Your task to perform on an android device: What's the weather going to be tomorrow? Image 0: 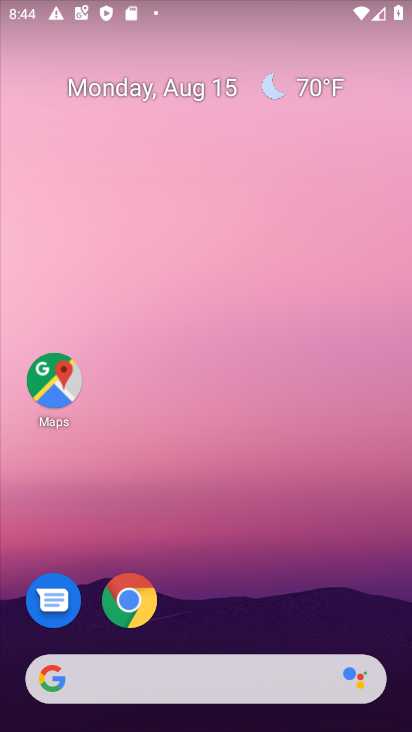
Step 0: drag from (229, 647) to (220, 192)
Your task to perform on an android device: What's the weather going to be tomorrow? Image 1: 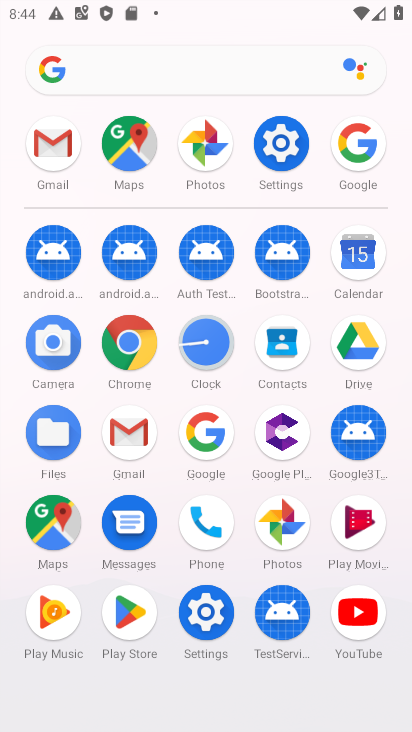
Step 1: click (208, 437)
Your task to perform on an android device: What's the weather going to be tomorrow? Image 2: 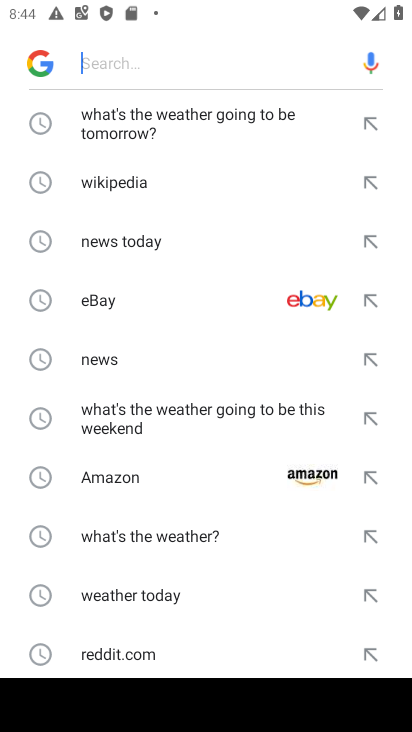
Step 2: click (44, 56)
Your task to perform on an android device: What's the weather going to be tomorrow? Image 3: 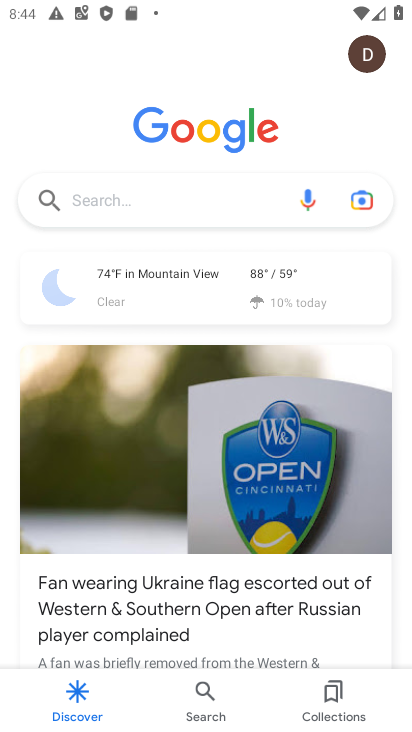
Step 3: click (168, 274)
Your task to perform on an android device: What's the weather going to be tomorrow? Image 4: 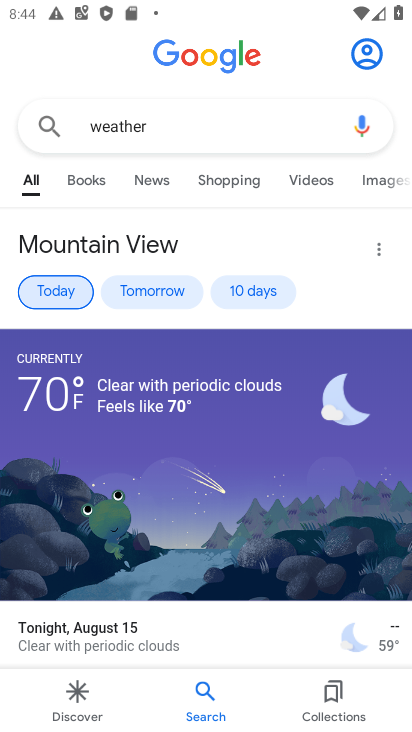
Step 4: click (160, 290)
Your task to perform on an android device: What's the weather going to be tomorrow? Image 5: 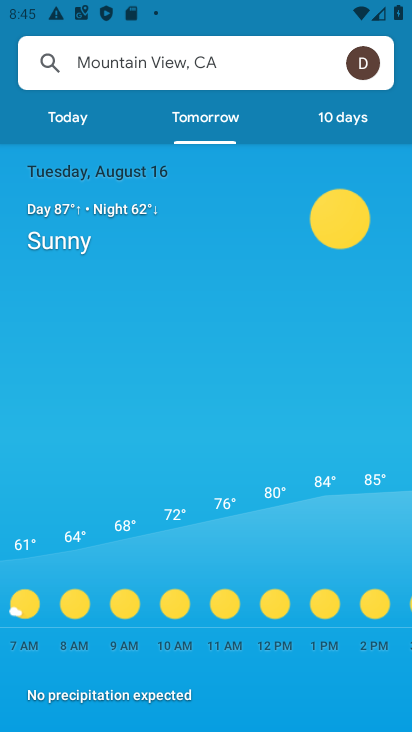
Step 5: task complete